Your task to perform on an android device: Open Google Chrome Image 0: 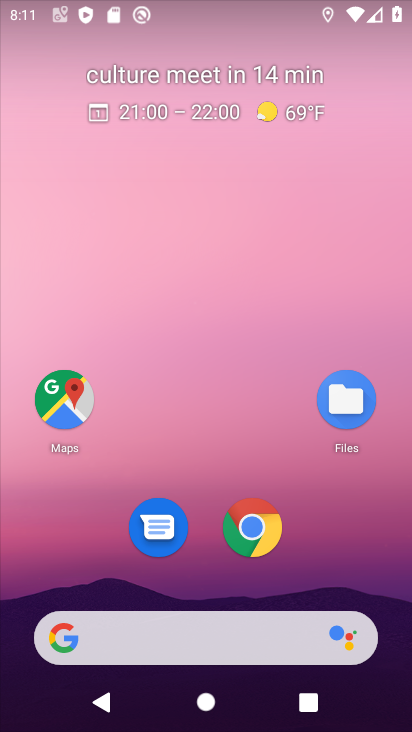
Step 0: click (257, 527)
Your task to perform on an android device: Open Google Chrome Image 1: 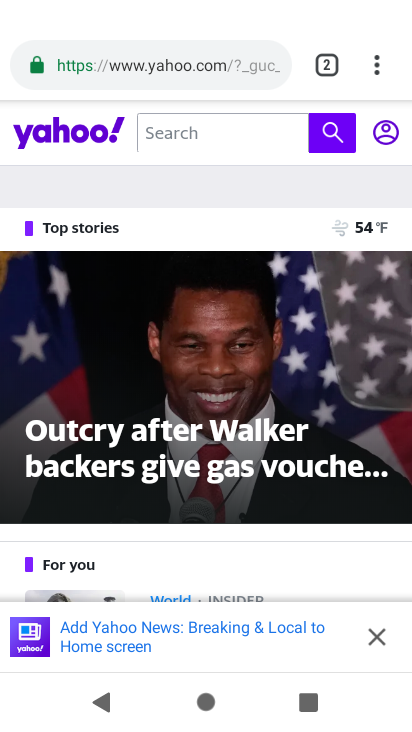
Step 1: task complete